Your task to perform on an android device: change keyboard looks Image 0: 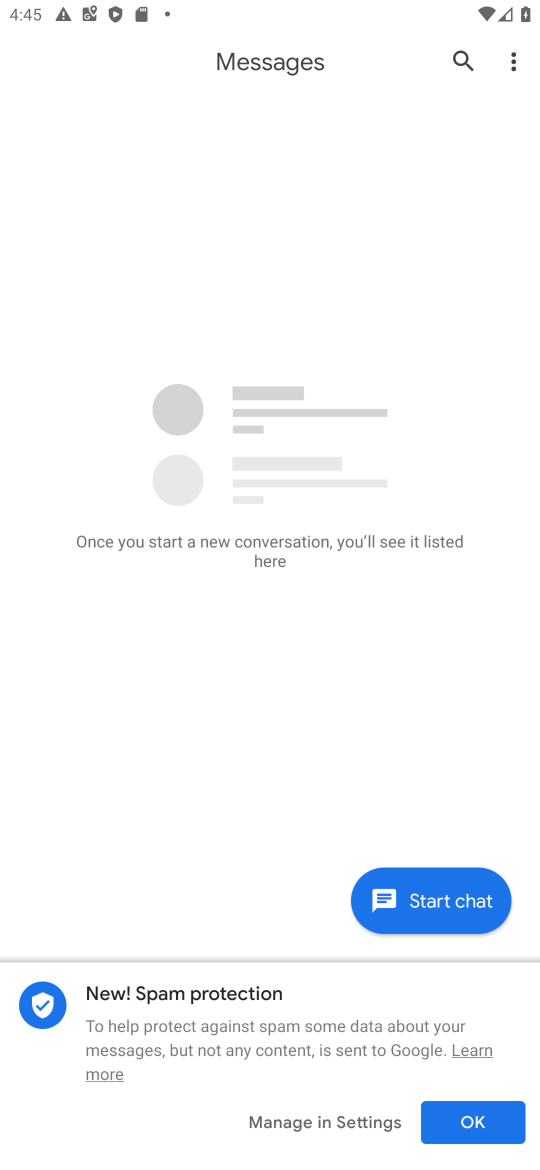
Step 0: press home button
Your task to perform on an android device: change keyboard looks Image 1: 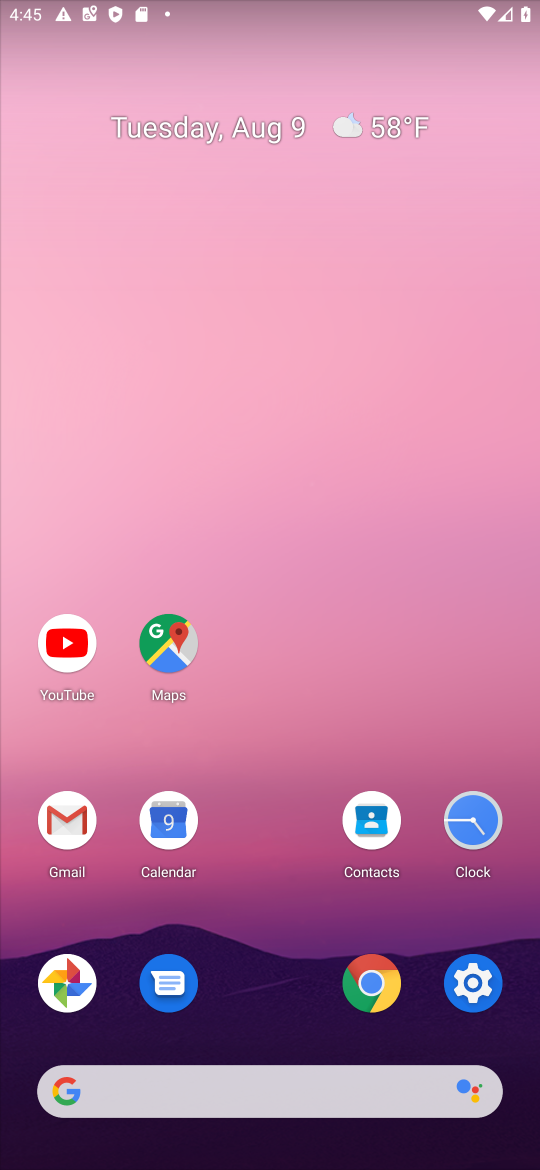
Step 1: click (472, 981)
Your task to perform on an android device: change keyboard looks Image 2: 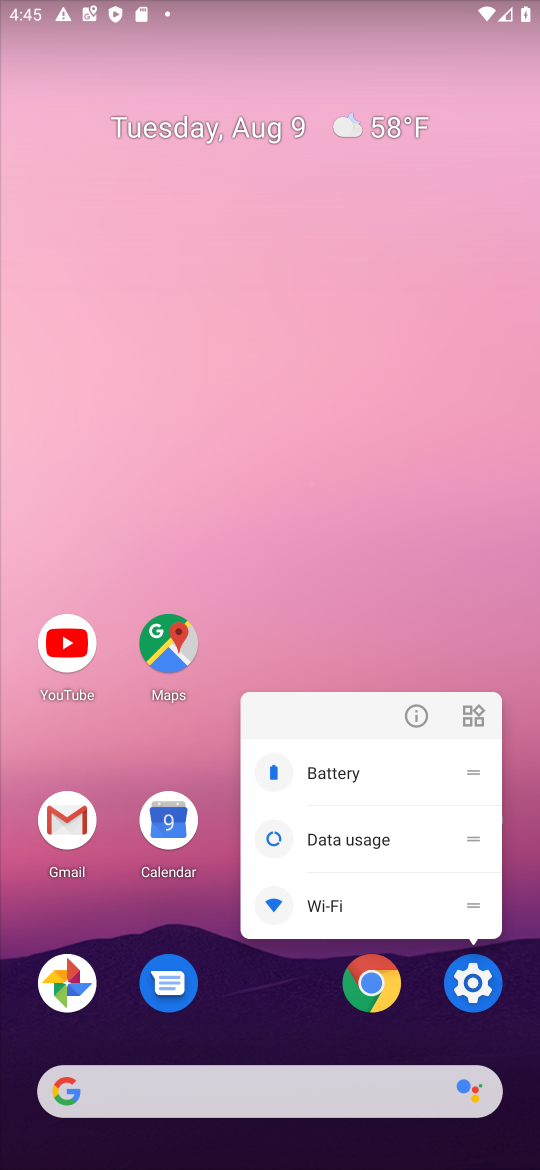
Step 2: click (472, 981)
Your task to perform on an android device: change keyboard looks Image 3: 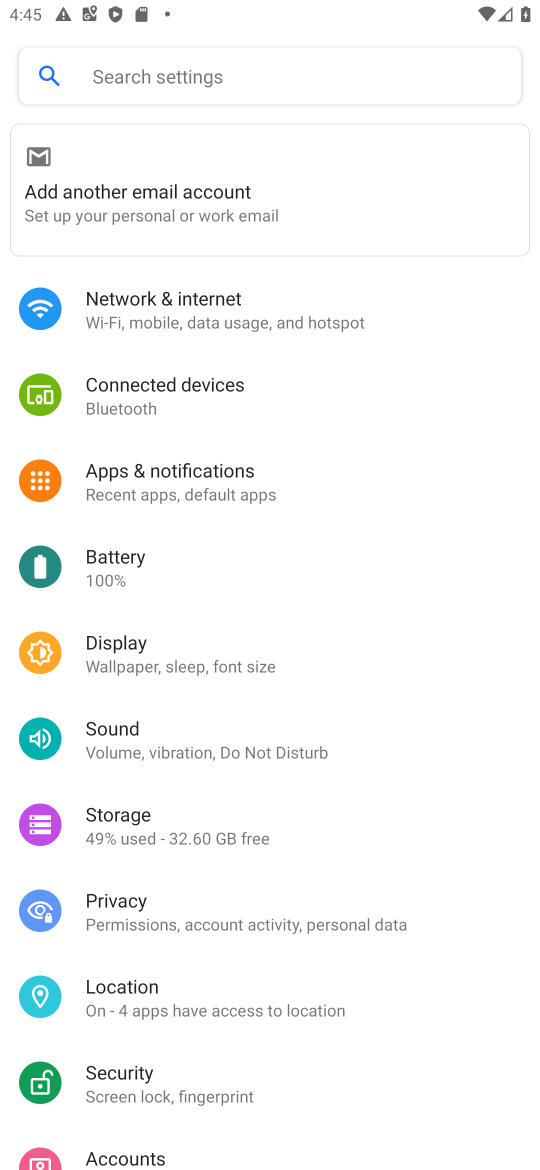
Step 3: drag from (272, 1043) to (176, 300)
Your task to perform on an android device: change keyboard looks Image 4: 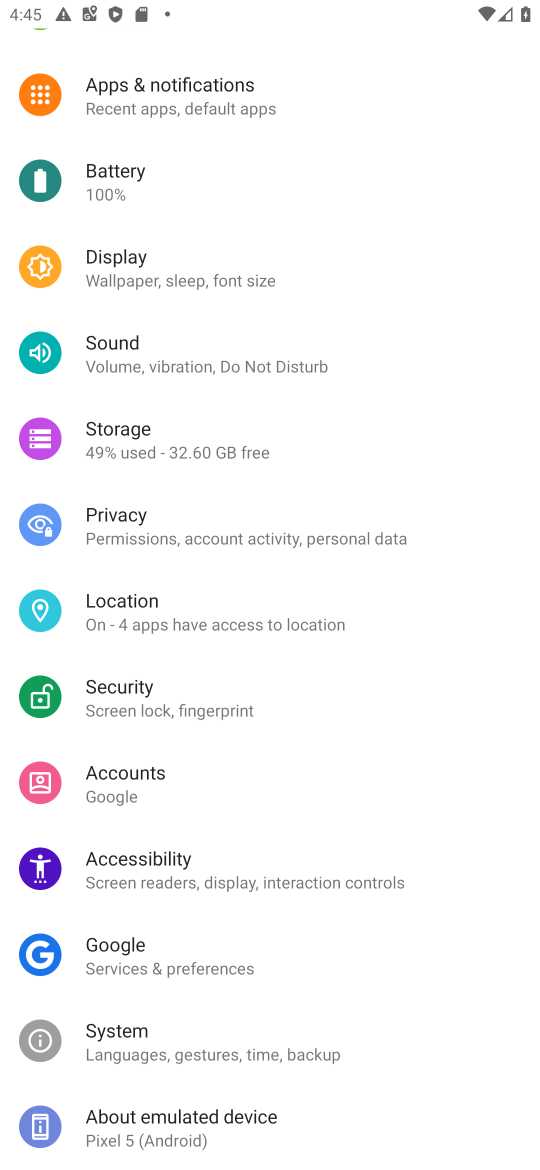
Step 4: click (107, 1035)
Your task to perform on an android device: change keyboard looks Image 5: 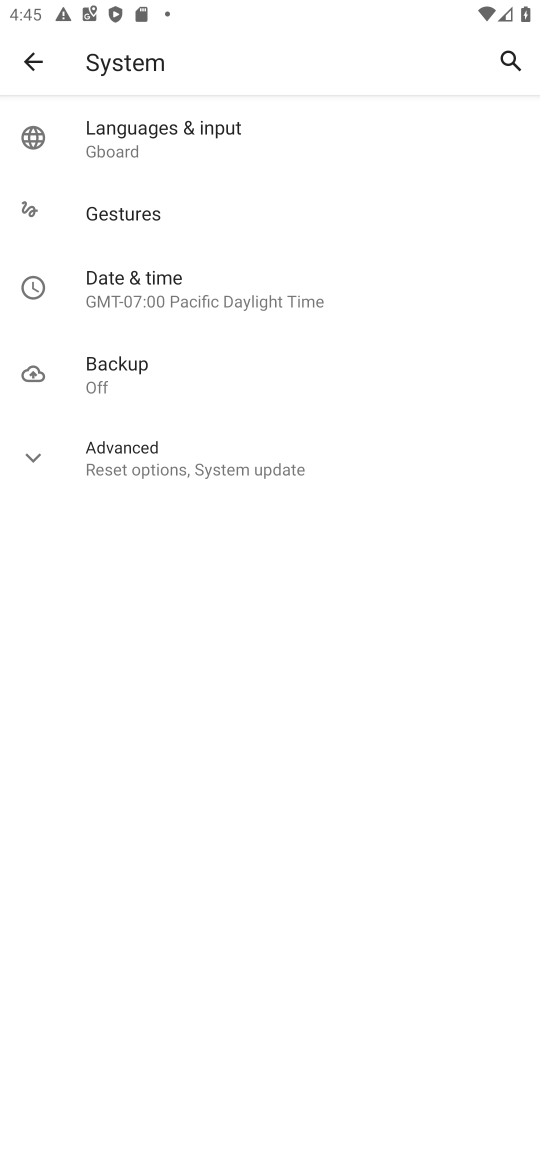
Step 5: click (124, 127)
Your task to perform on an android device: change keyboard looks Image 6: 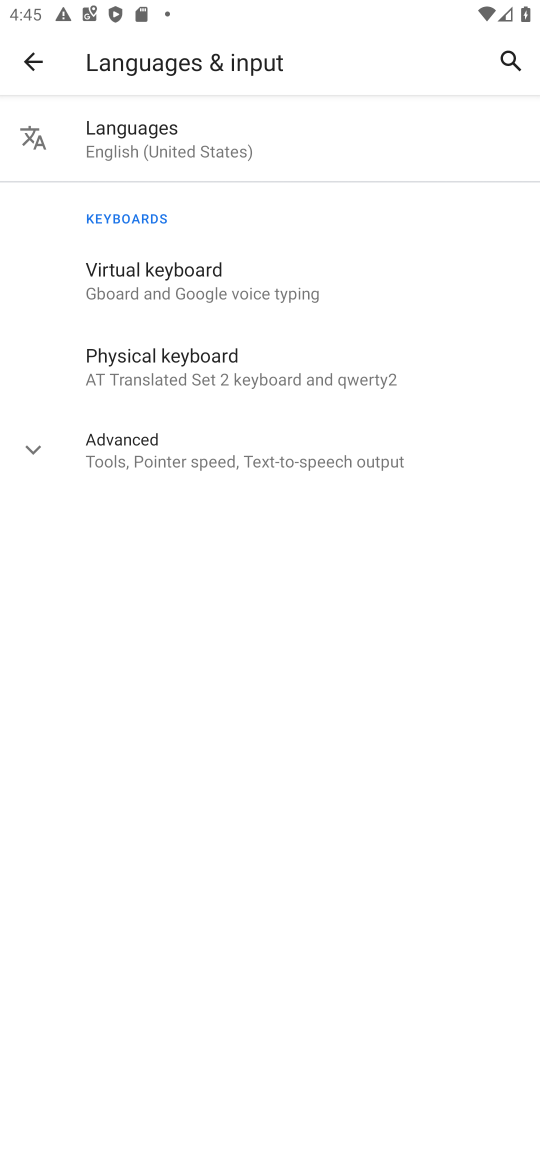
Step 6: click (120, 266)
Your task to perform on an android device: change keyboard looks Image 7: 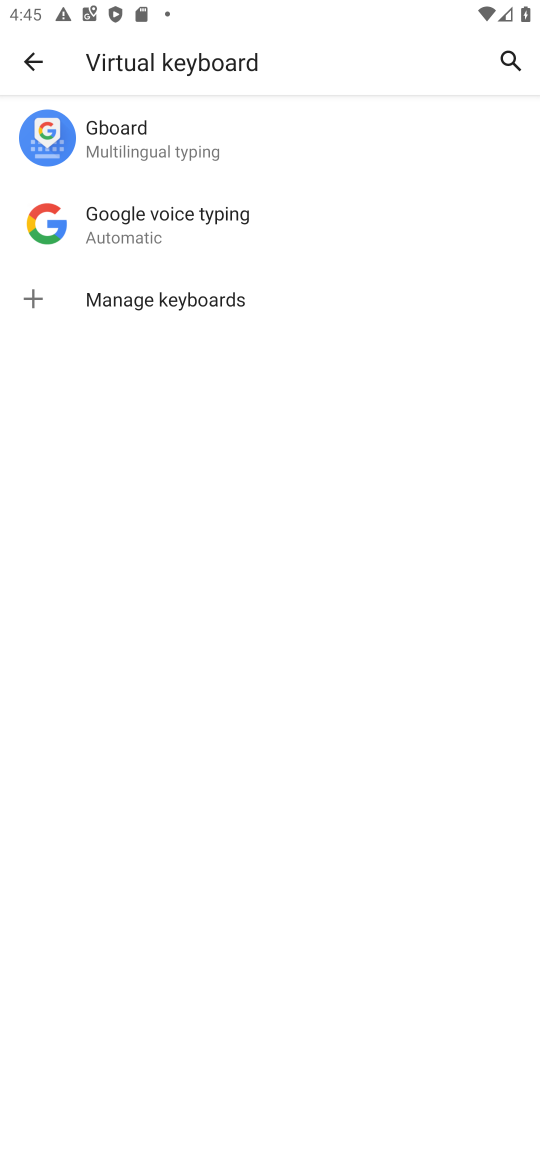
Step 7: click (84, 136)
Your task to perform on an android device: change keyboard looks Image 8: 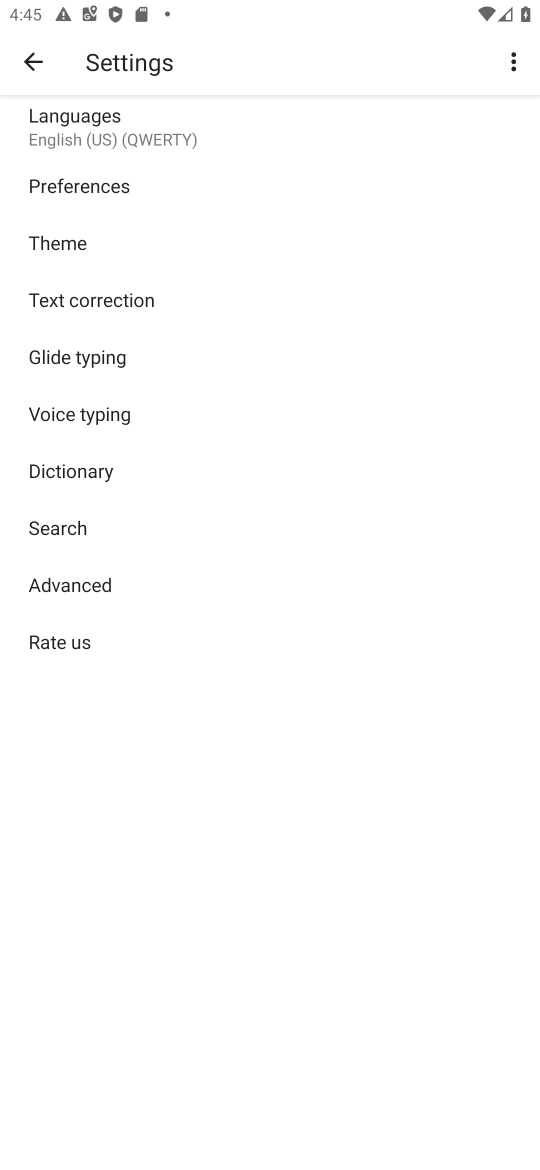
Step 8: click (54, 232)
Your task to perform on an android device: change keyboard looks Image 9: 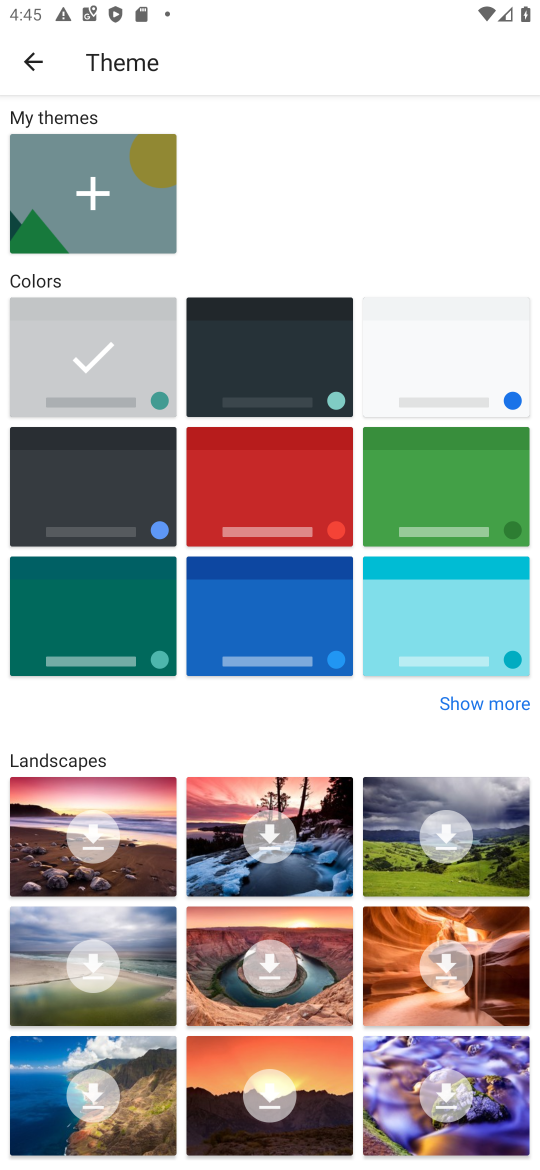
Step 9: click (137, 606)
Your task to perform on an android device: change keyboard looks Image 10: 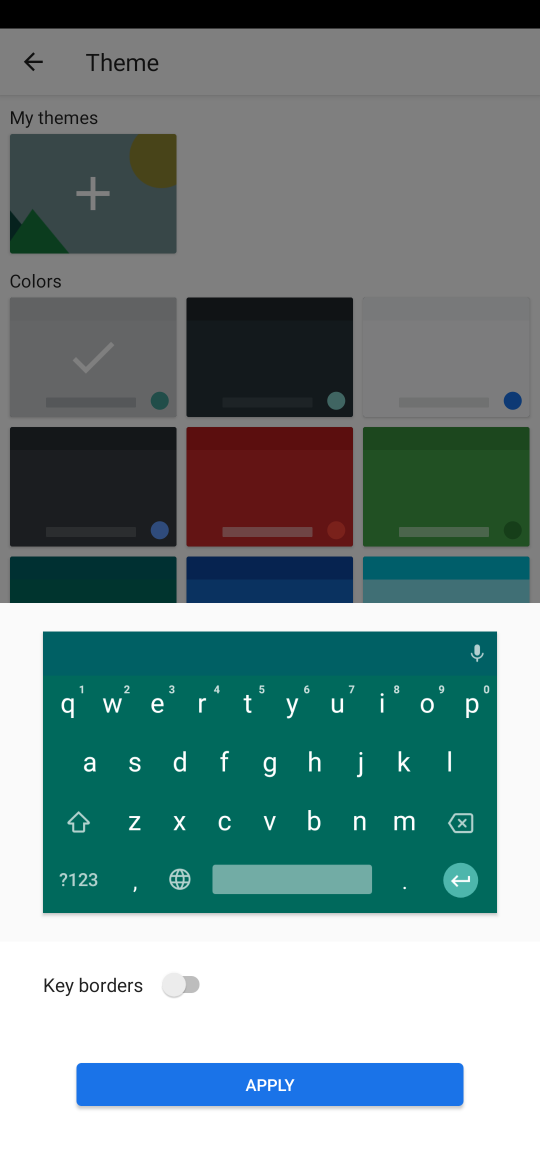
Step 10: click (284, 1086)
Your task to perform on an android device: change keyboard looks Image 11: 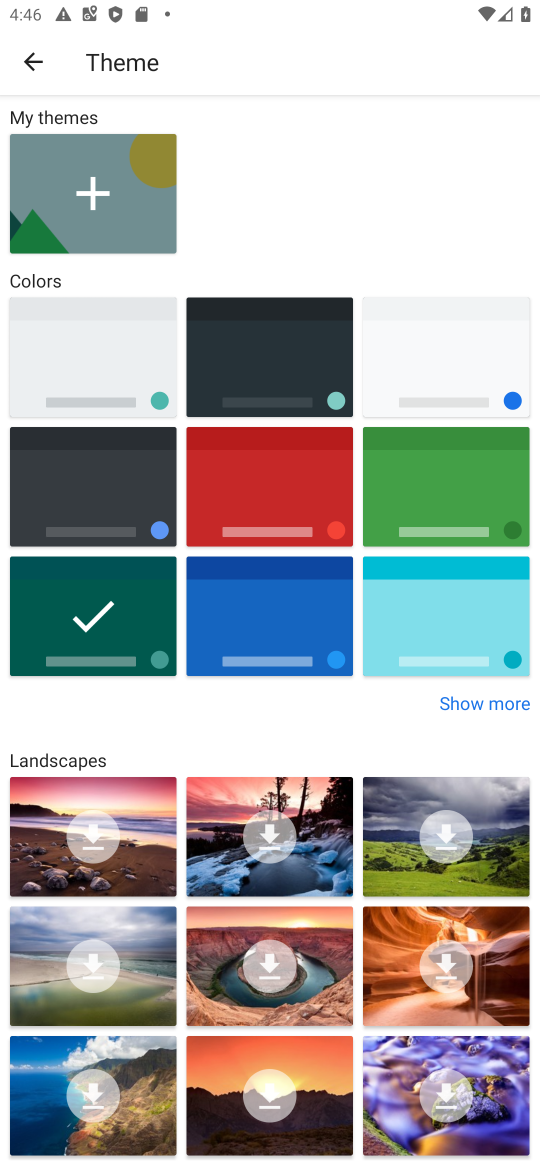
Step 11: task complete